Your task to perform on an android device: install app "Roku - Official Remote Control" Image 0: 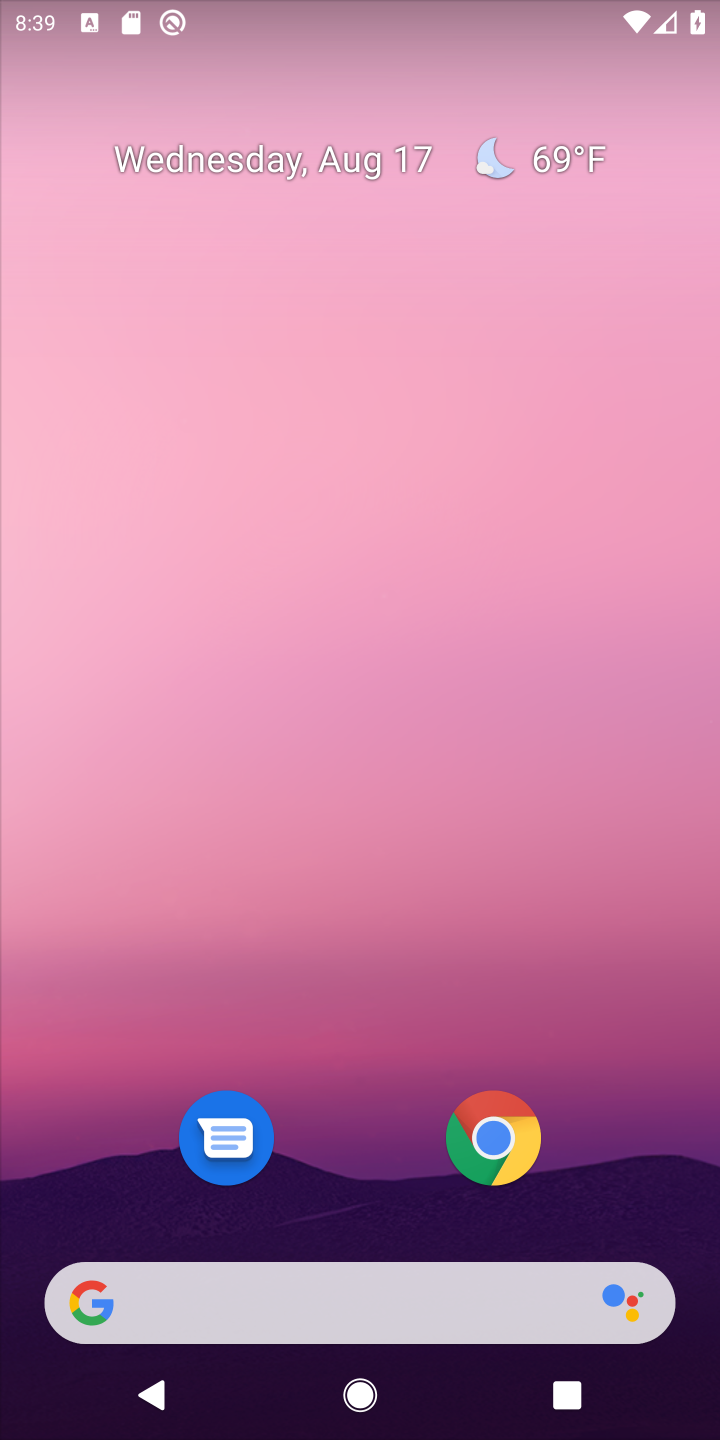
Step 0: drag from (299, 1257) to (491, 365)
Your task to perform on an android device: install app "Roku - Official Remote Control" Image 1: 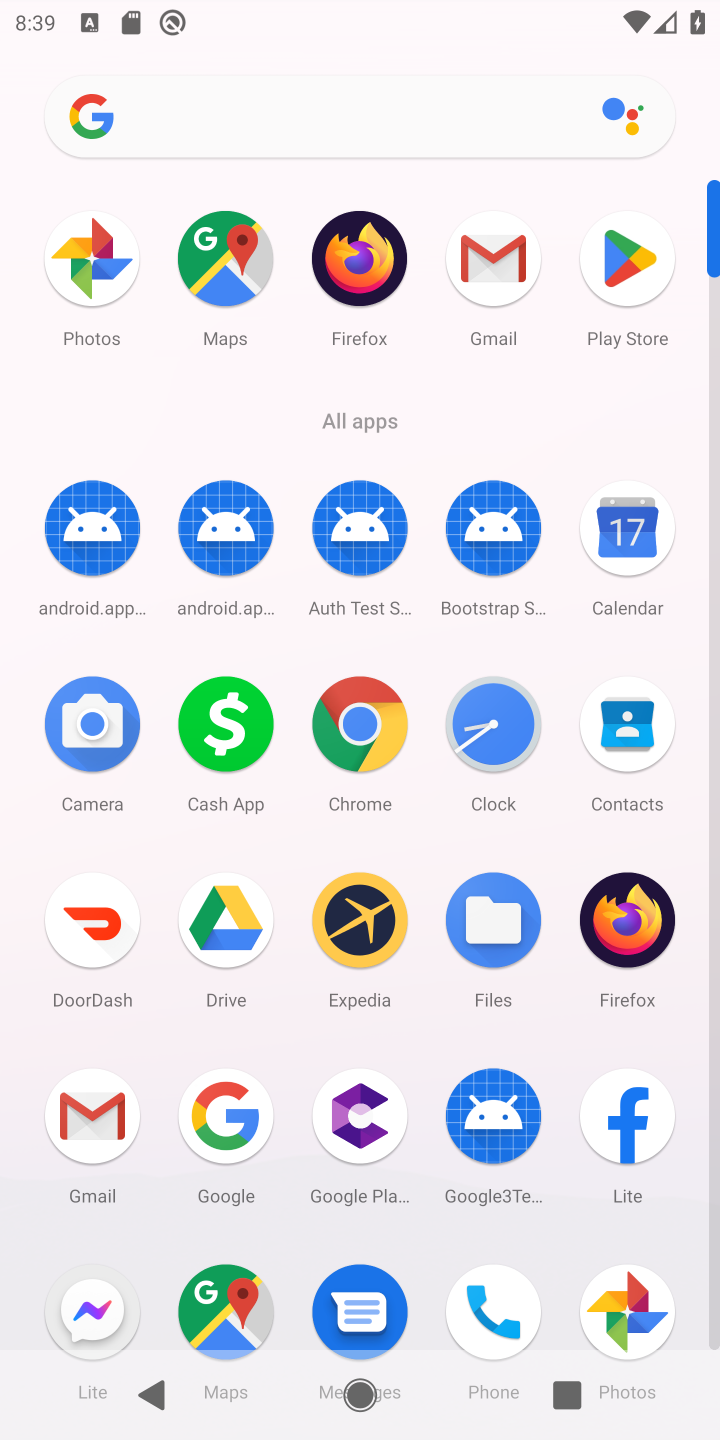
Step 1: click (622, 290)
Your task to perform on an android device: install app "Roku - Official Remote Control" Image 2: 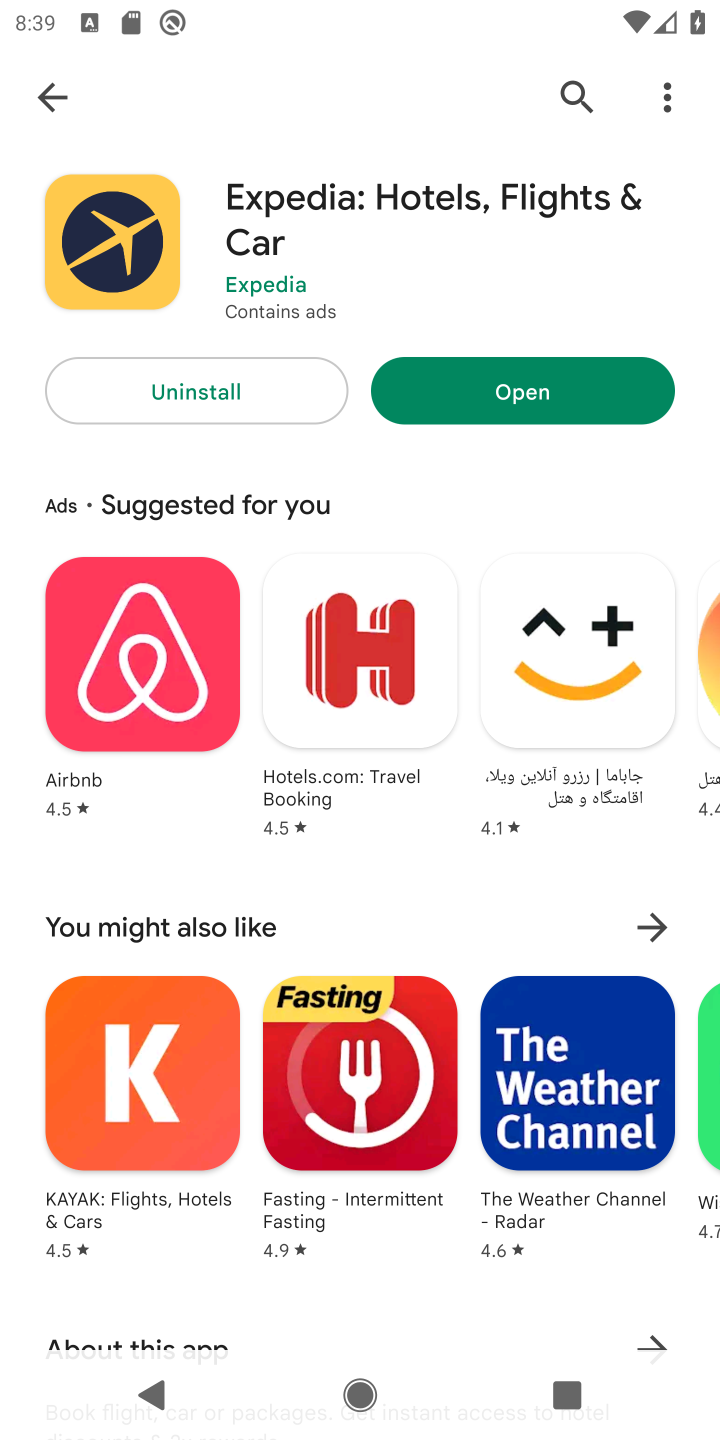
Step 2: click (70, 72)
Your task to perform on an android device: install app "Roku - Official Remote Control" Image 3: 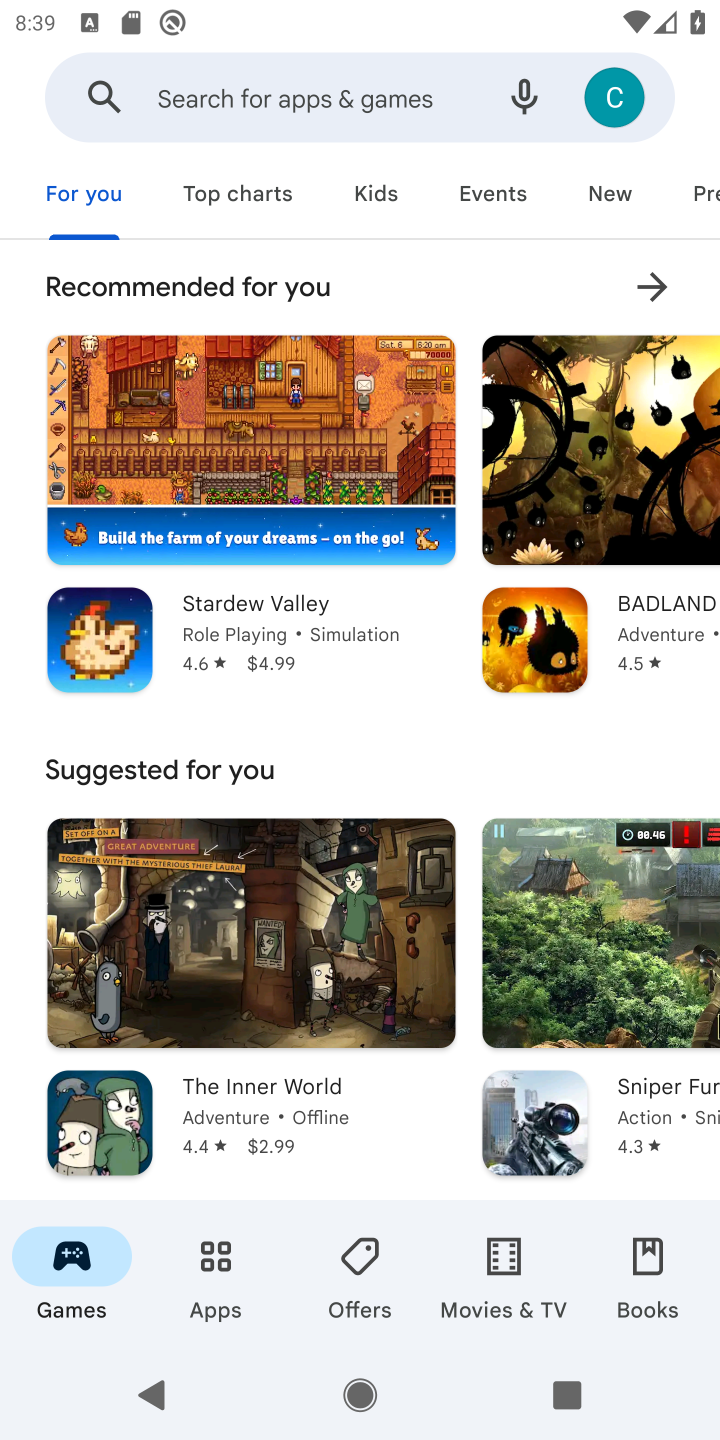
Step 3: click (372, 85)
Your task to perform on an android device: install app "Roku - Official Remote Control" Image 4: 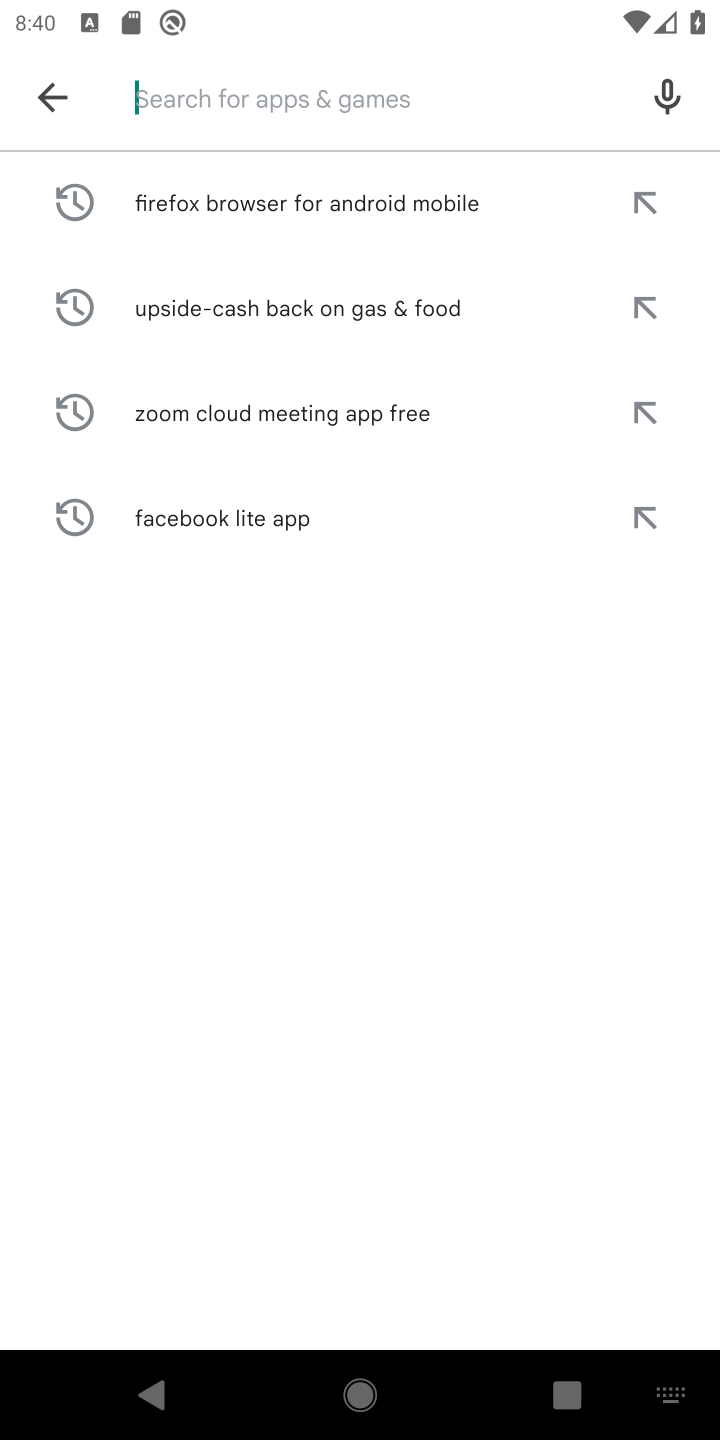
Step 4: type "Roku "
Your task to perform on an android device: install app "Roku - Official Remote Control" Image 5: 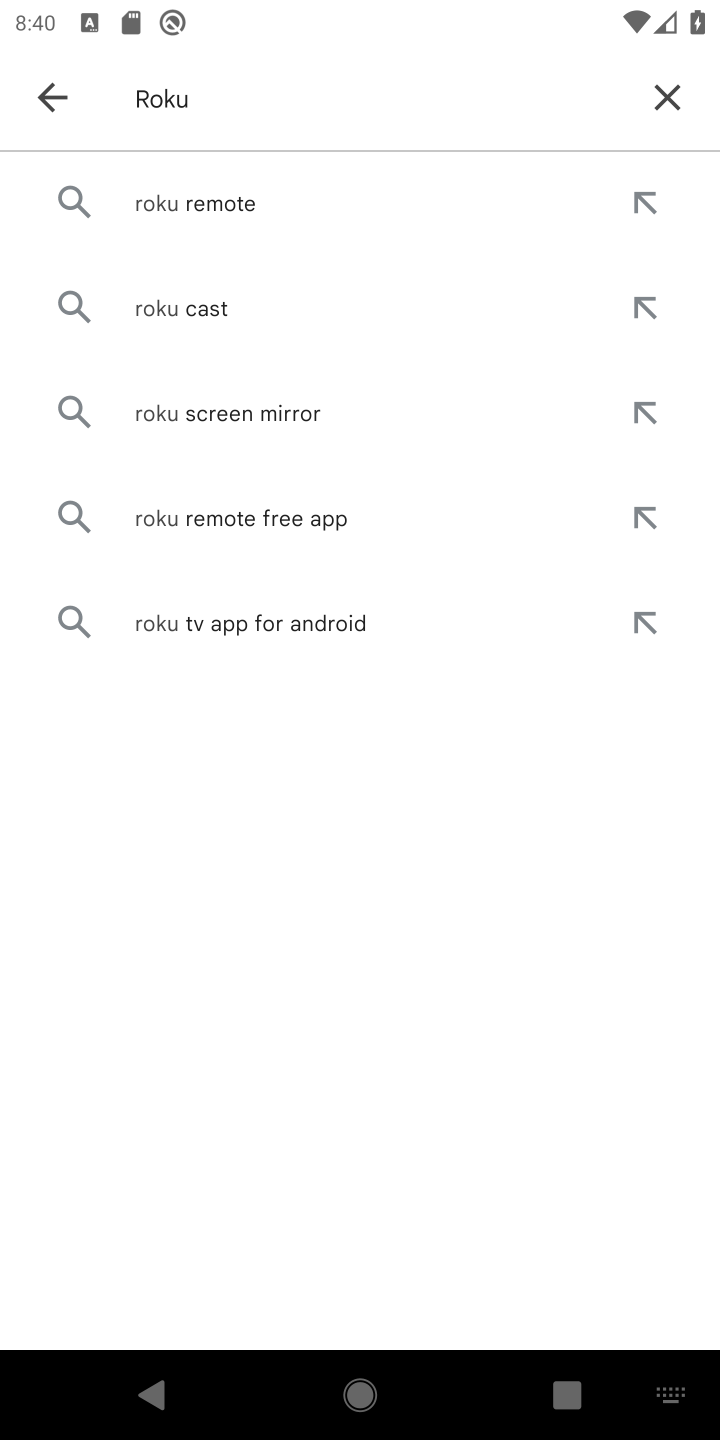
Step 5: click (240, 191)
Your task to perform on an android device: install app "Roku - Official Remote Control" Image 6: 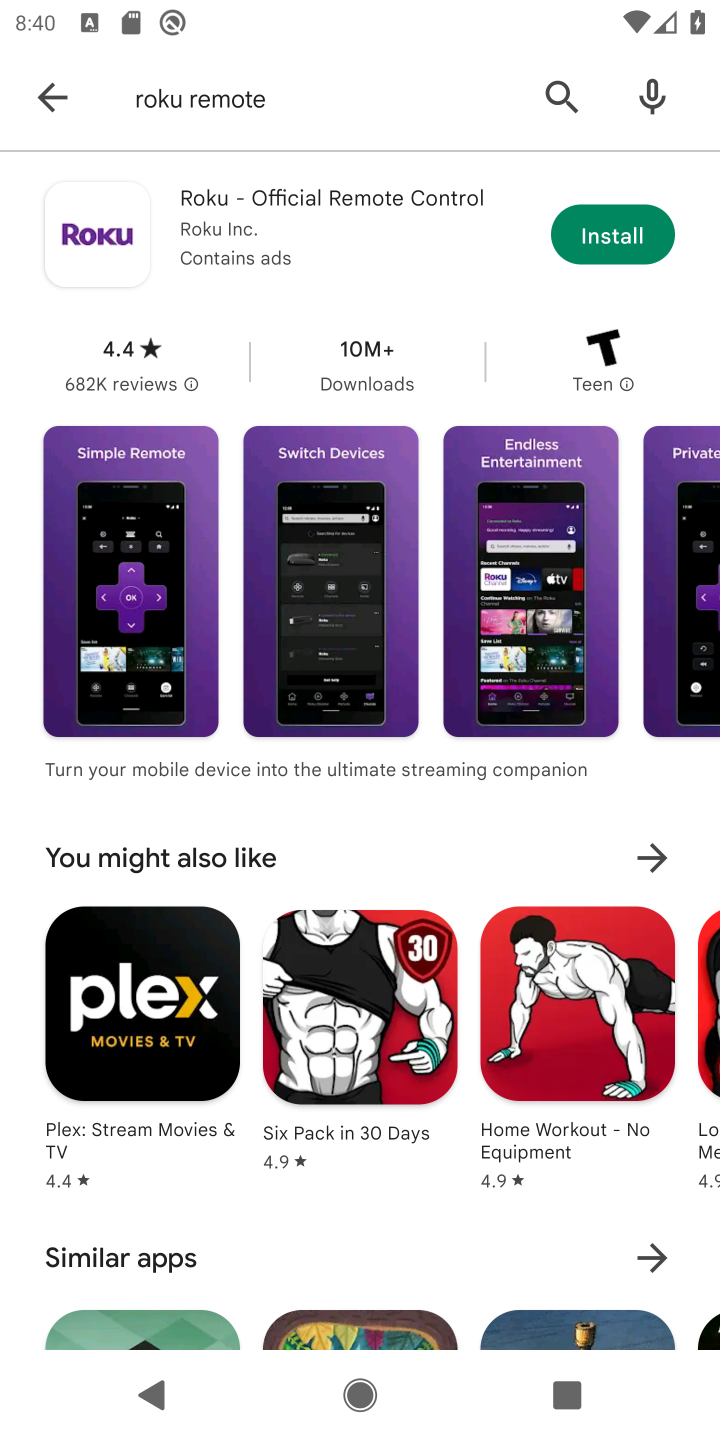
Step 6: click (612, 239)
Your task to perform on an android device: install app "Roku - Official Remote Control" Image 7: 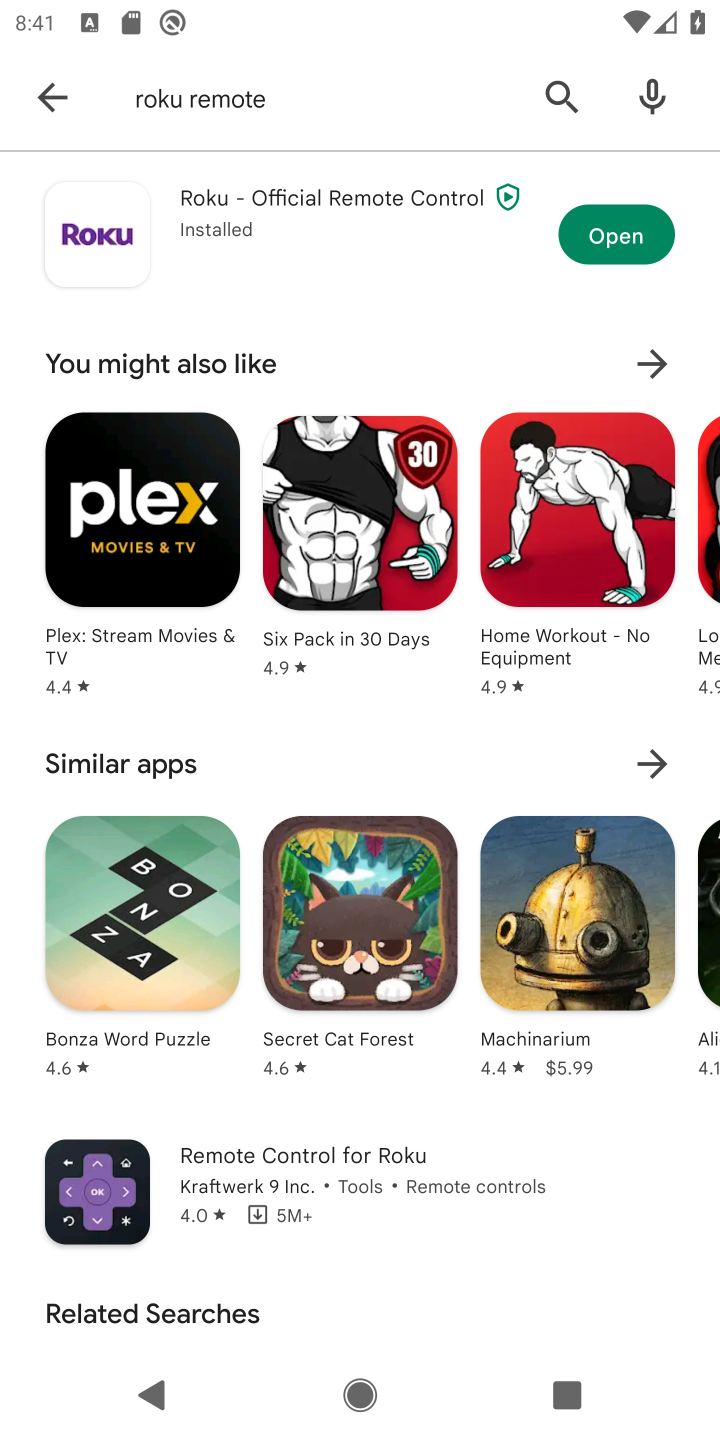
Step 7: click (612, 239)
Your task to perform on an android device: install app "Roku - Official Remote Control" Image 8: 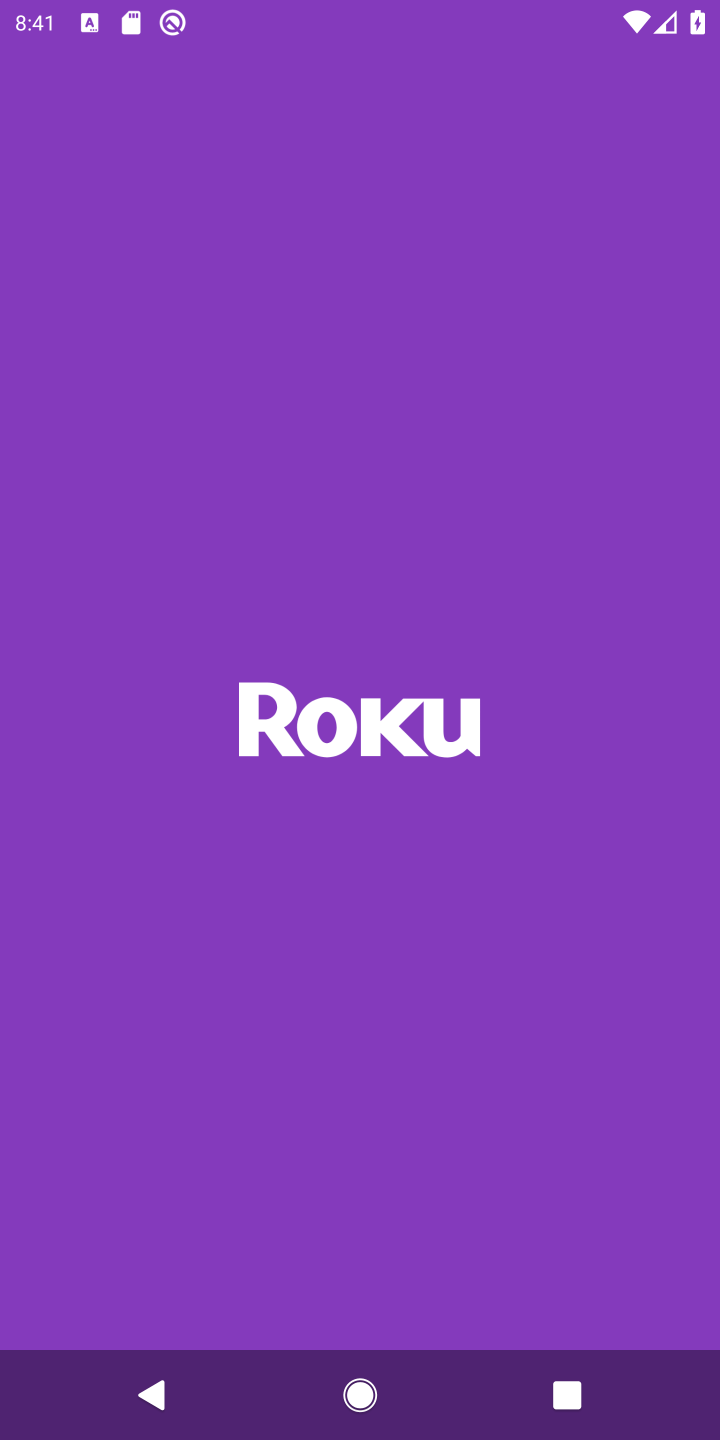
Step 8: task complete